Your task to perform on an android device: clear history in the chrome app Image 0: 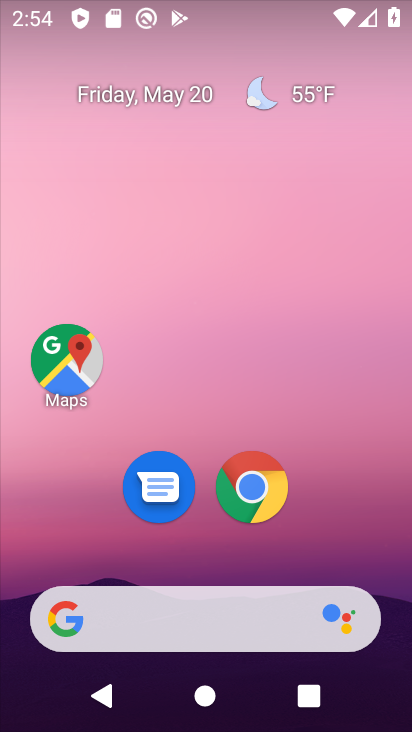
Step 0: drag from (265, 468) to (394, 506)
Your task to perform on an android device: clear history in the chrome app Image 1: 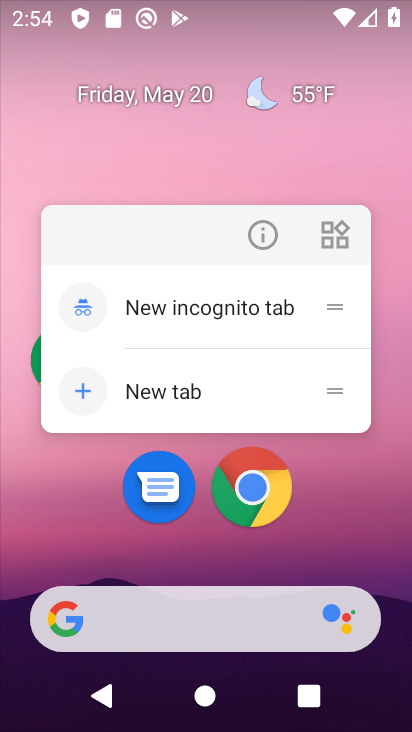
Step 1: drag from (352, 656) to (127, 2)
Your task to perform on an android device: clear history in the chrome app Image 2: 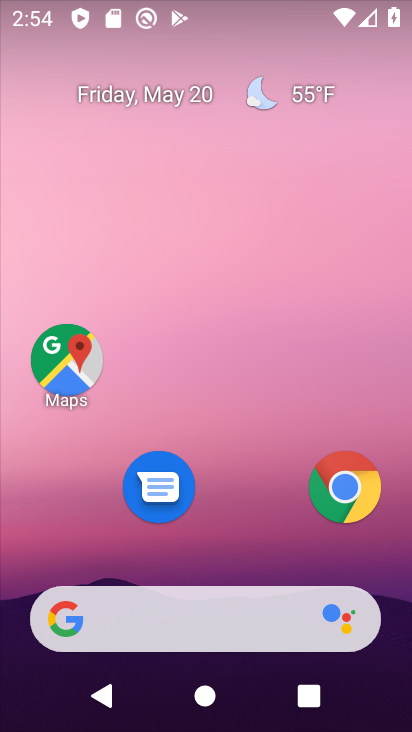
Step 2: drag from (229, 537) to (100, 3)
Your task to perform on an android device: clear history in the chrome app Image 3: 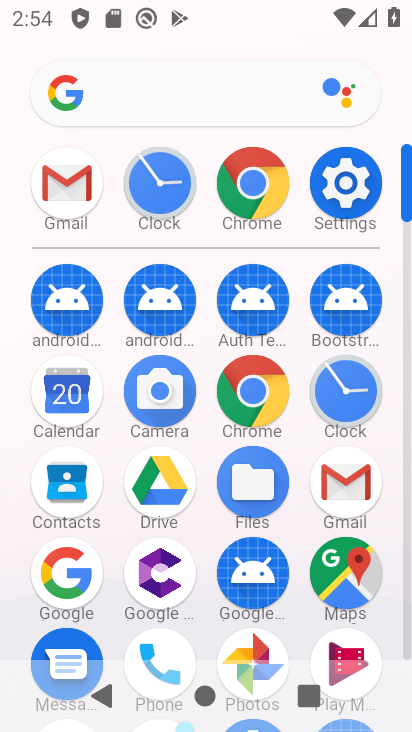
Step 3: drag from (251, 513) to (176, 40)
Your task to perform on an android device: clear history in the chrome app Image 4: 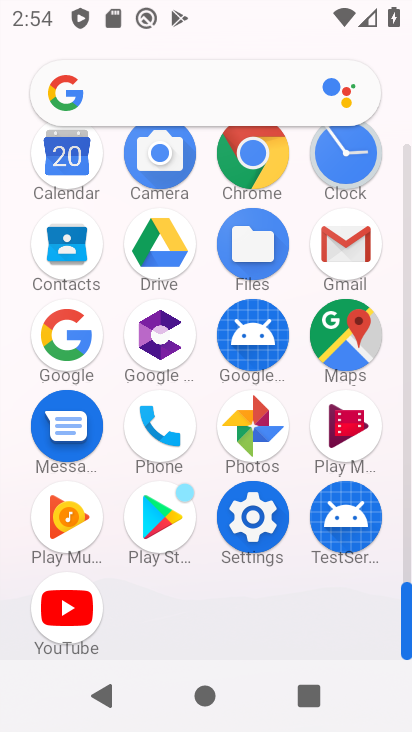
Step 4: click (244, 171)
Your task to perform on an android device: clear history in the chrome app Image 5: 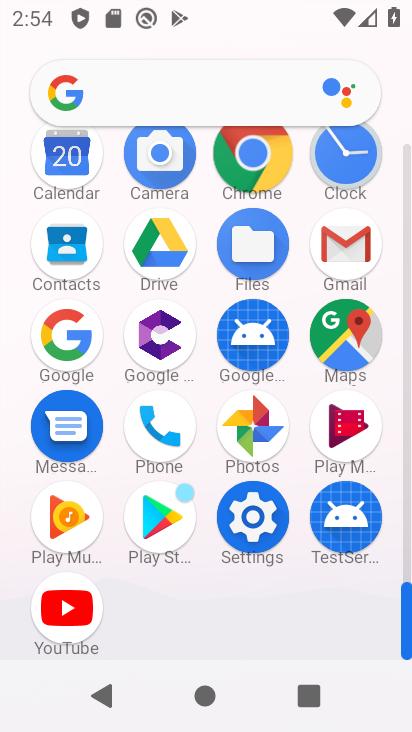
Step 5: click (245, 170)
Your task to perform on an android device: clear history in the chrome app Image 6: 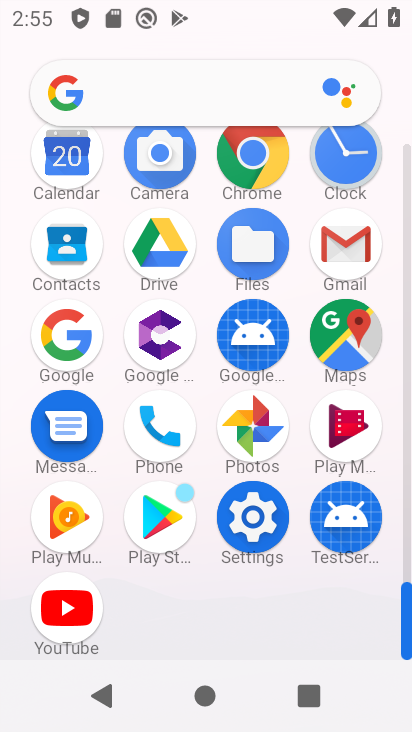
Step 6: click (231, 161)
Your task to perform on an android device: clear history in the chrome app Image 7: 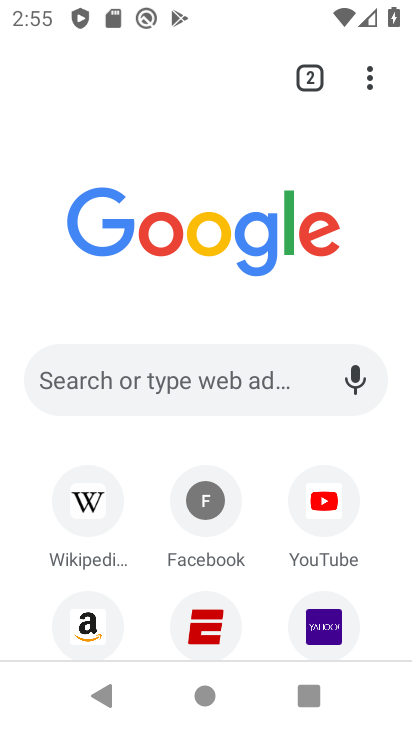
Step 7: click (369, 81)
Your task to perform on an android device: clear history in the chrome app Image 8: 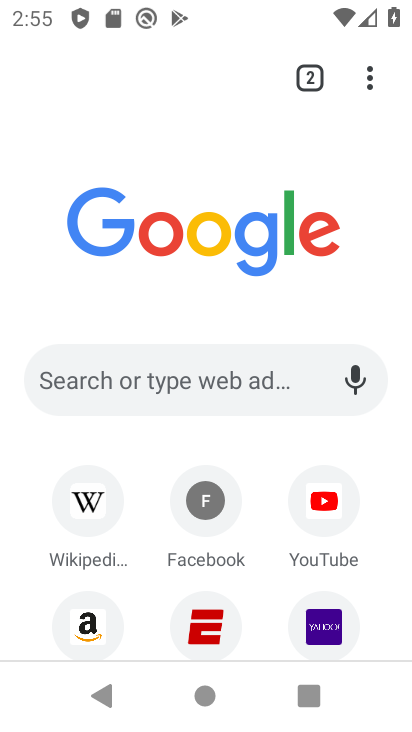
Step 8: drag from (369, 85) to (74, 445)
Your task to perform on an android device: clear history in the chrome app Image 9: 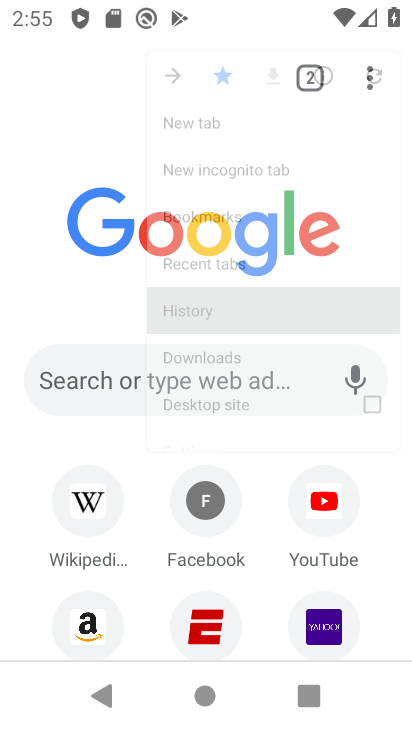
Step 9: click (73, 446)
Your task to perform on an android device: clear history in the chrome app Image 10: 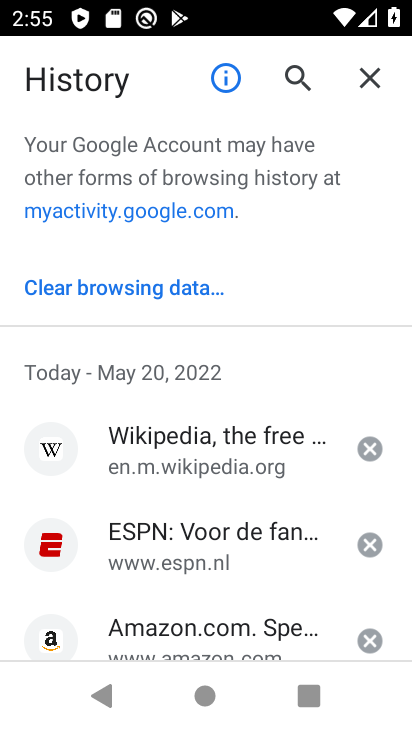
Step 10: click (145, 289)
Your task to perform on an android device: clear history in the chrome app Image 11: 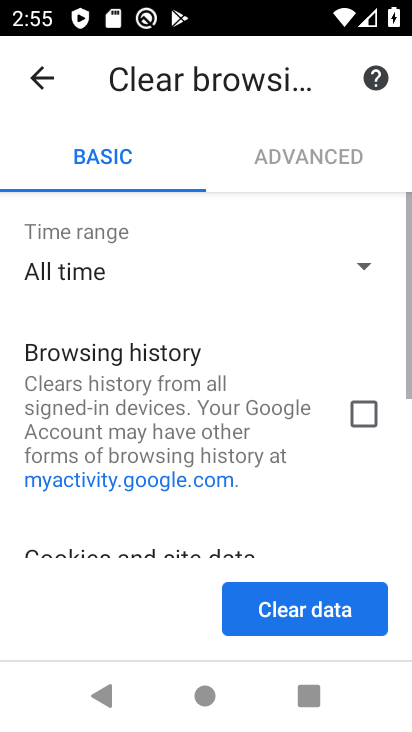
Step 11: click (305, 604)
Your task to perform on an android device: clear history in the chrome app Image 12: 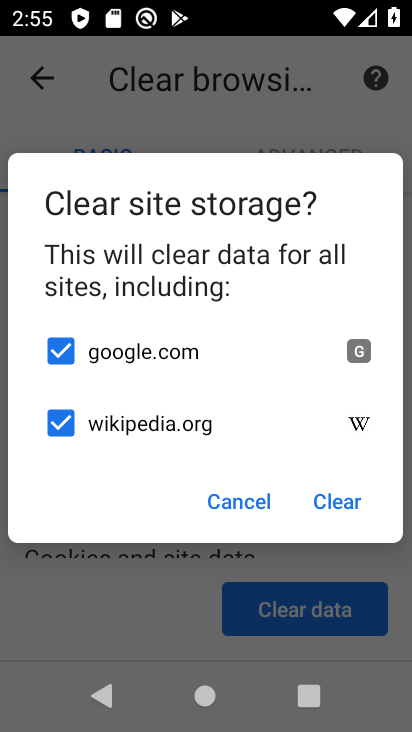
Step 12: click (326, 495)
Your task to perform on an android device: clear history in the chrome app Image 13: 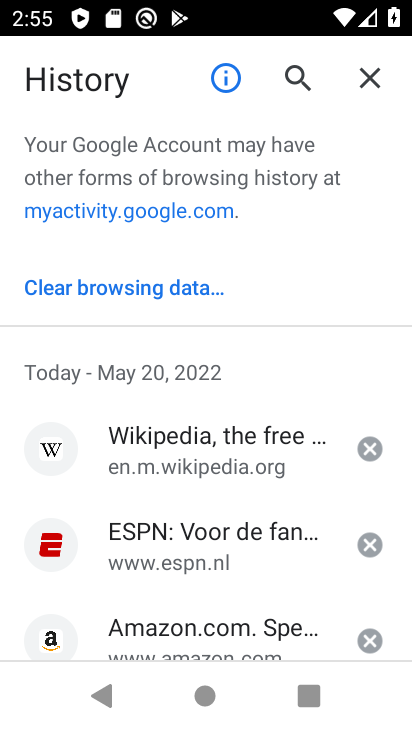
Step 13: task complete